Your task to perform on an android device: Open Google Chrome and open the bookmarks view Image 0: 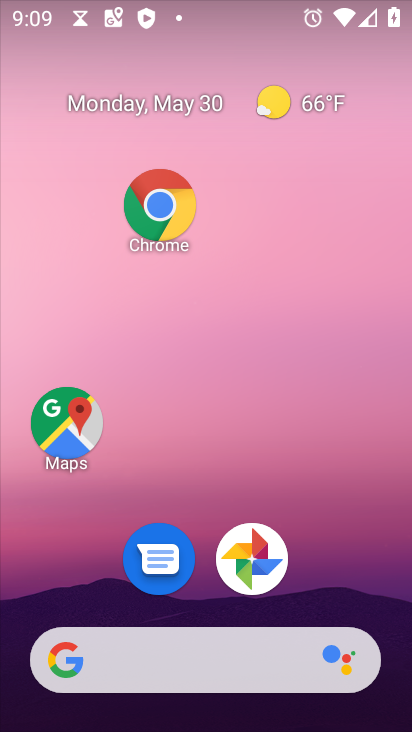
Step 0: drag from (211, 696) to (93, 139)
Your task to perform on an android device: Open Google Chrome and open the bookmarks view Image 1: 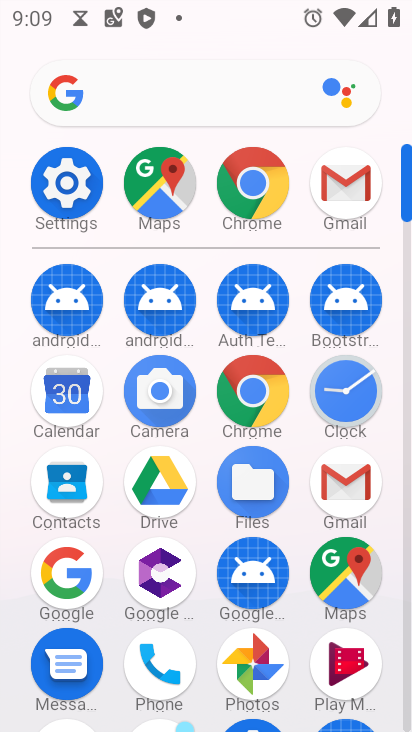
Step 1: click (250, 393)
Your task to perform on an android device: Open Google Chrome and open the bookmarks view Image 2: 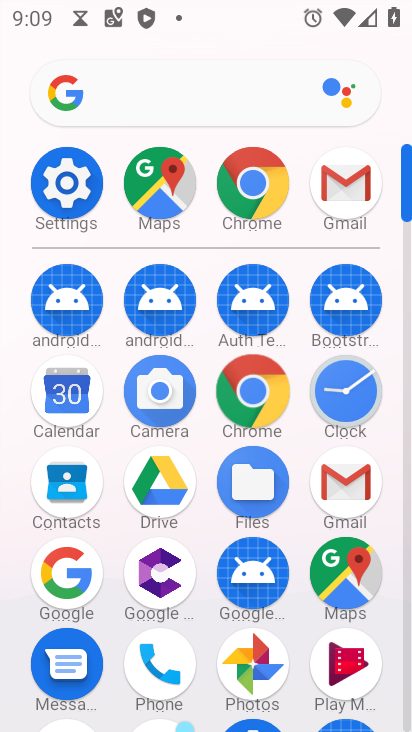
Step 2: click (250, 392)
Your task to perform on an android device: Open Google Chrome and open the bookmarks view Image 3: 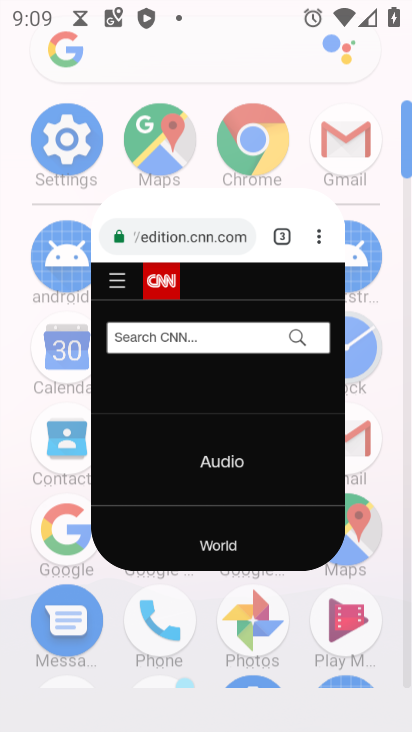
Step 3: click (250, 391)
Your task to perform on an android device: Open Google Chrome and open the bookmarks view Image 4: 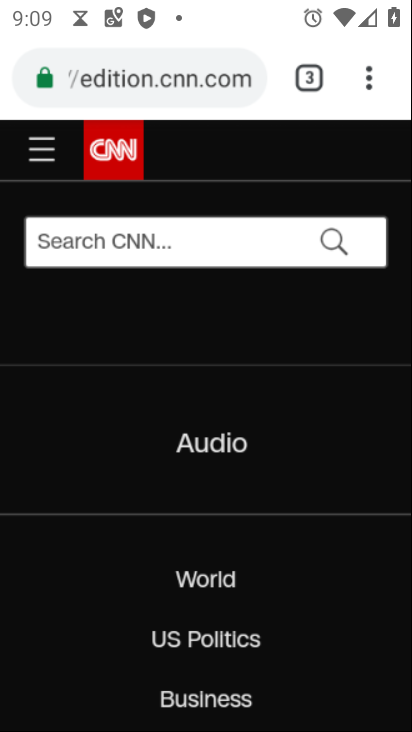
Step 4: click (254, 392)
Your task to perform on an android device: Open Google Chrome and open the bookmarks view Image 5: 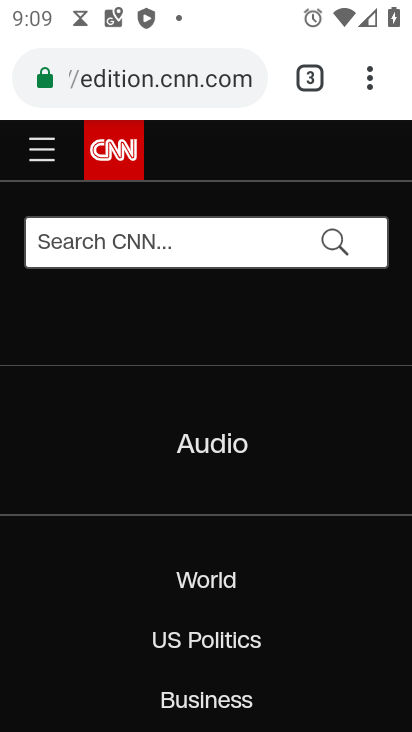
Step 5: click (366, 81)
Your task to perform on an android device: Open Google Chrome and open the bookmarks view Image 6: 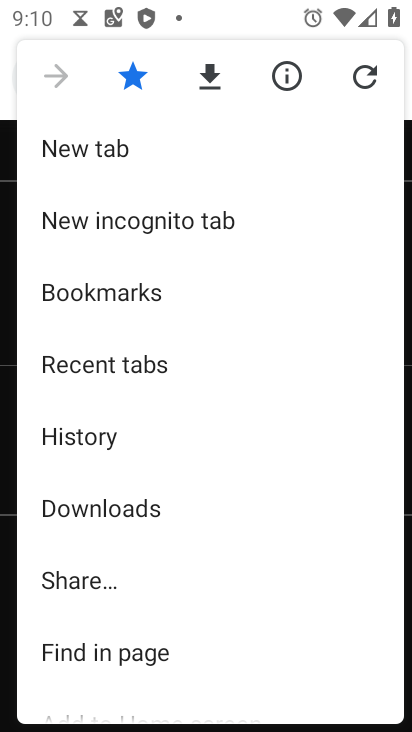
Step 6: click (97, 295)
Your task to perform on an android device: Open Google Chrome and open the bookmarks view Image 7: 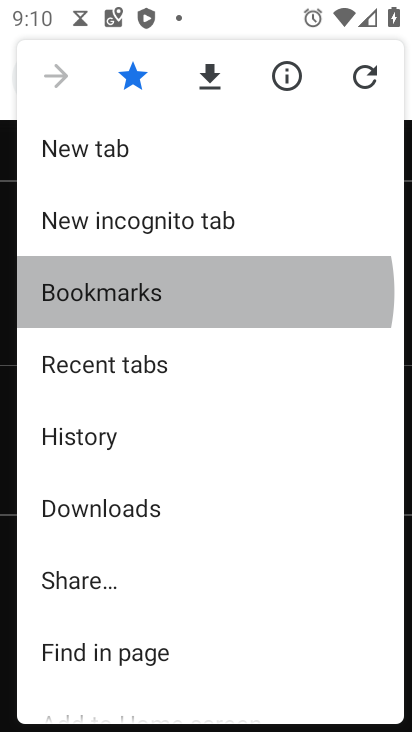
Step 7: click (97, 295)
Your task to perform on an android device: Open Google Chrome and open the bookmarks view Image 8: 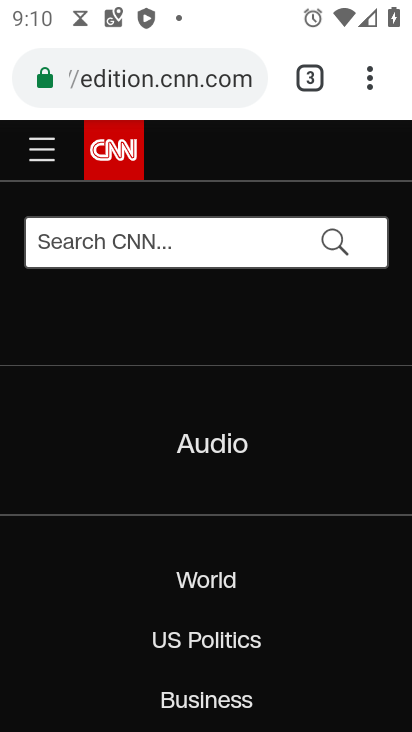
Step 8: click (95, 293)
Your task to perform on an android device: Open Google Chrome and open the bookmarks view Image 9: 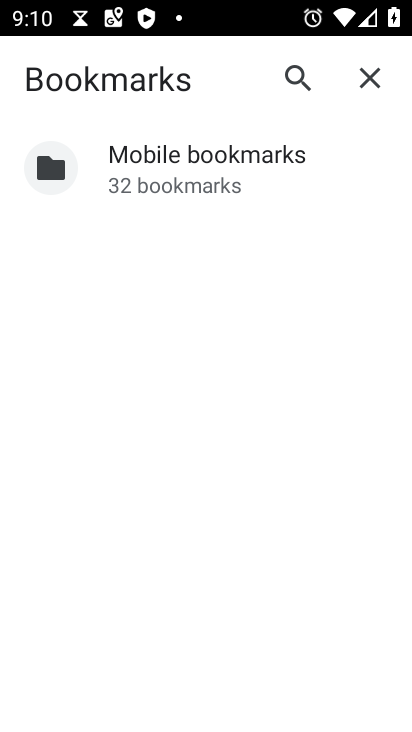
Step 9: click (95, 293)
Your task to perform on an android device: Open Google Chrome and open the bookmarks view Image 10: 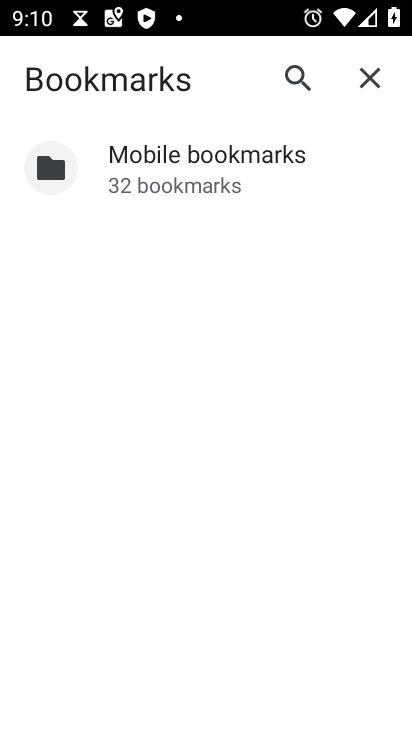
Step 10: task complete